Your task to perform on an android device: toggle improve location accuracy Image 0: 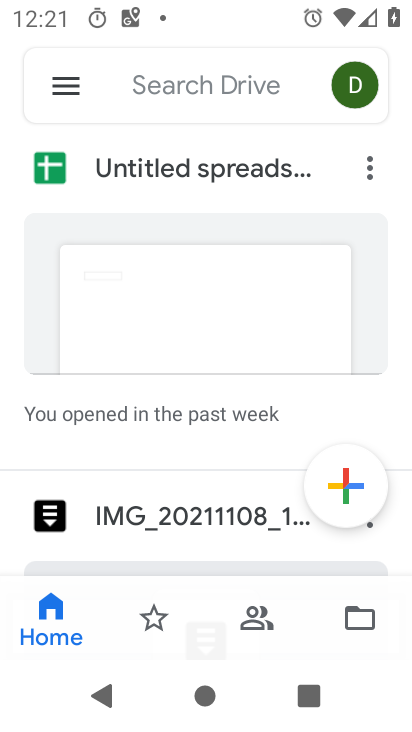
Step 0: press back button
Your task to perform on an android device: toggle improve location accuracy Image 1: 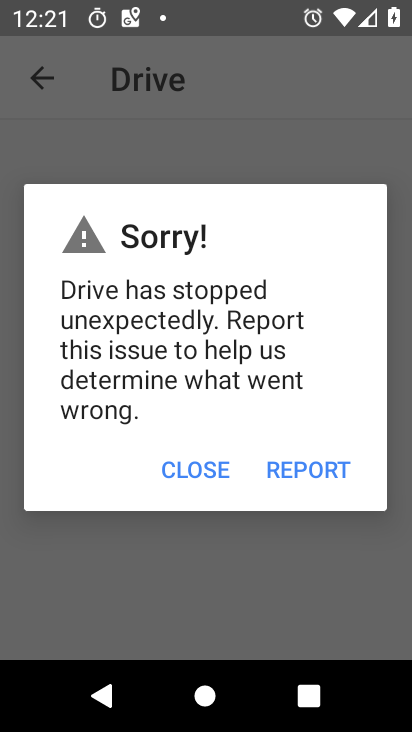
Step 1: press home button
Your task to perform on an android device: toggle improve location accuracy Image 2: 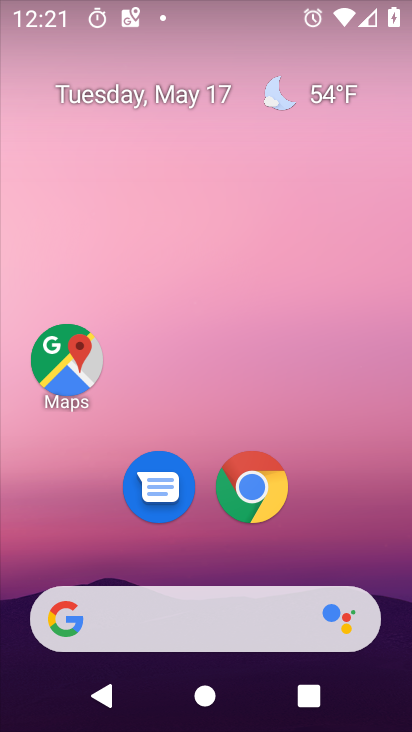
Step 2: drag from (193, 568) to (253, 152)
Your task to perform on an android device: toggle improve location accuracy Image 3: 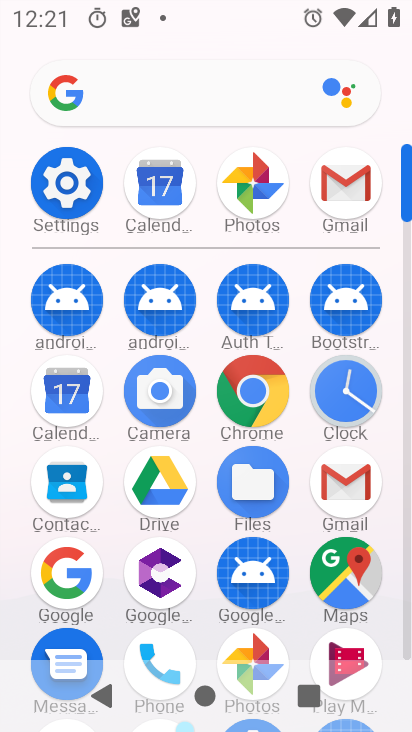
Step 3: click (61, 194)
Your task to perform on an android device: toggle improve location accuracy Image 4: 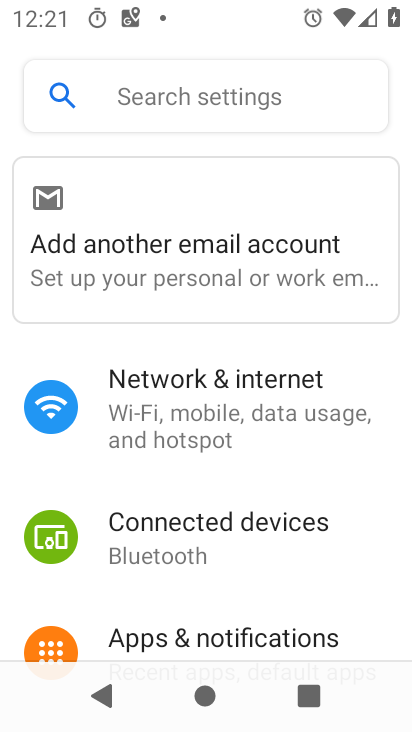
Step 4: drag from (173, 520) to (299, 70)
Your task to perform on an android device: toggle improve location accuracy Image 5: 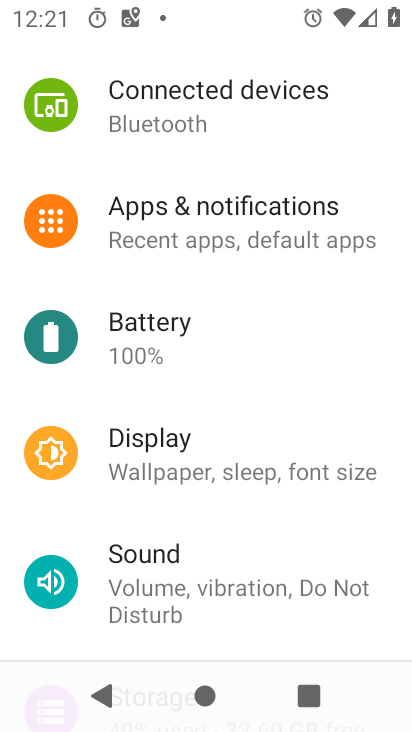
Step 5: drag from (117, 536) to (249, 107)
Your task to perform on an android device: toggle improve location accuracy Image 6: 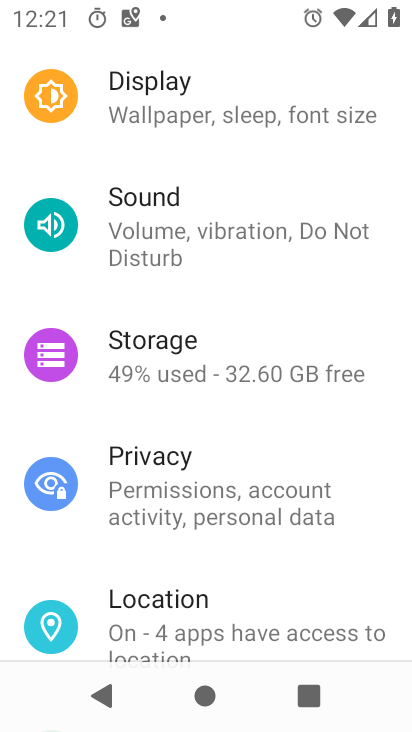
Step 6: drag from (164, 506) to (284, 75)
Your task to perform on an android device: toggle improve location accuracy Image 7: 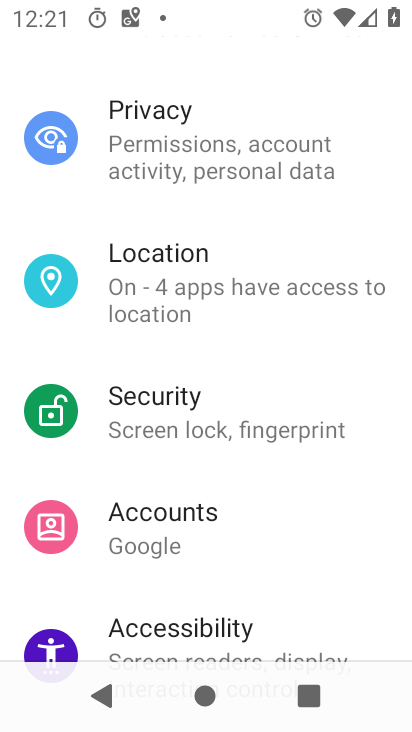
Step 7: click (174, 579)
Your task to perform on an android device: toggle improve location accuracy Image 8: 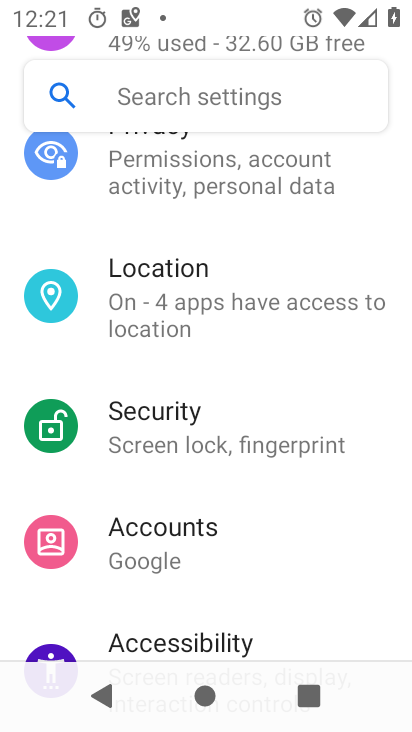
Step 8: click (129, 303)
Your task to perform on an android device: toggle improve location accuracy Image 9: 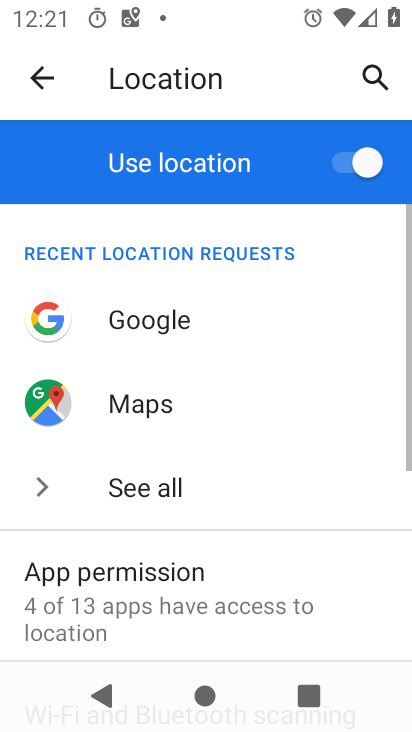
Step 9: drag from (156, 589) to (282, 98)
Your task to perform on an android device: toggle improve location accuracy Image 10: 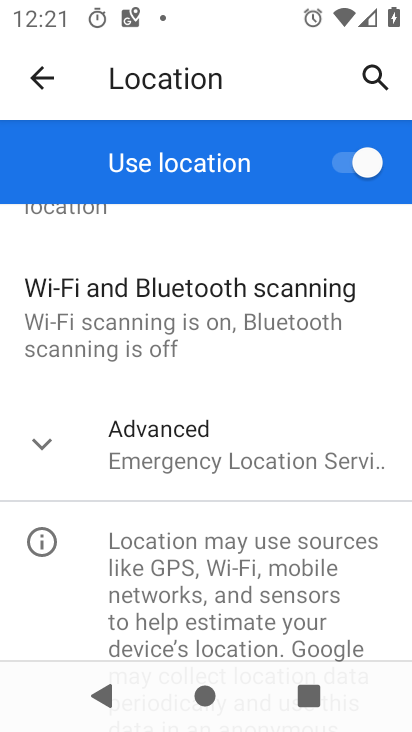
Step 10: click (218, 462)
Your task to perform on an android device: toggle improve location accuracy Image 11: 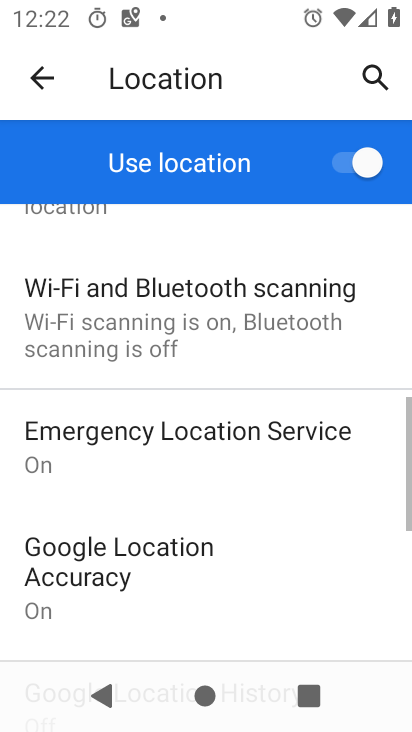
Step 11: drag from (174, 605) to (228, 227)
Your task to perform on an android device: toggle improve location accuracy Image 12: 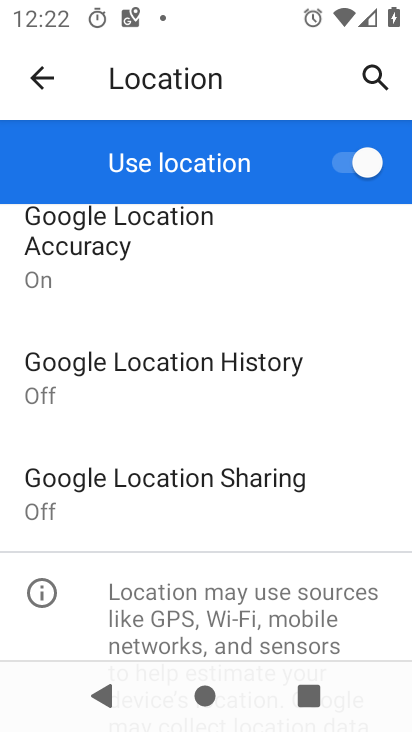
Step 12: drag from (159, 298) to (145, 506)
Your task to perform on an android device: toggle improve location accuracy Image 13: 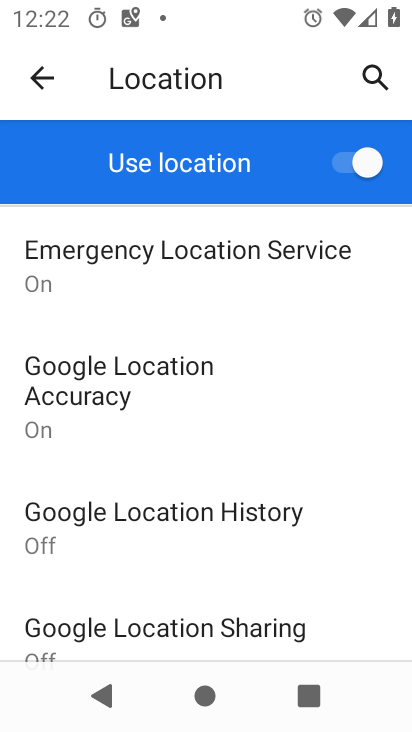
Step 13: click (115, 432)
Your task to perform on an android device: toggle improve location accuracy Image 14: 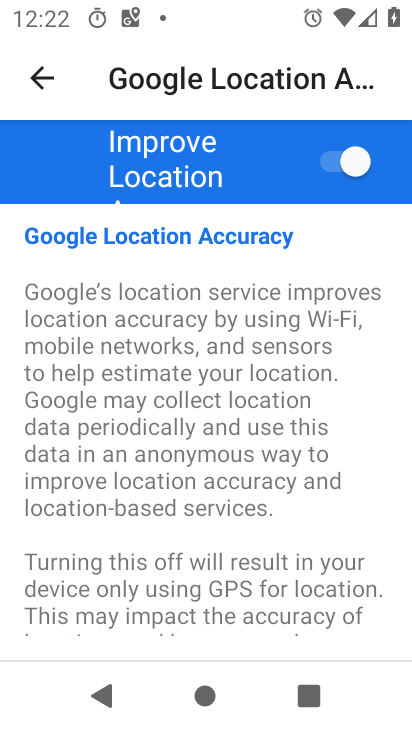
Step 14: drag from (179, 501) to (229, 534)
Your task to perform on an android device: toggle improve location accuracy Image 15: 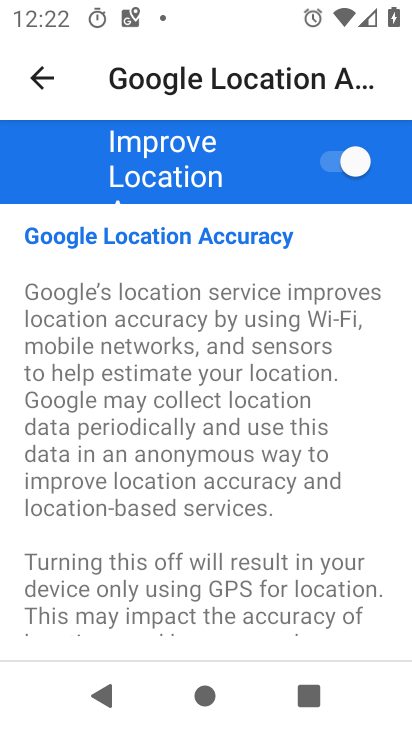
Step 15: click (344, 163)
Your task to perform on an android device: toggle improve location accuracy Image 16: 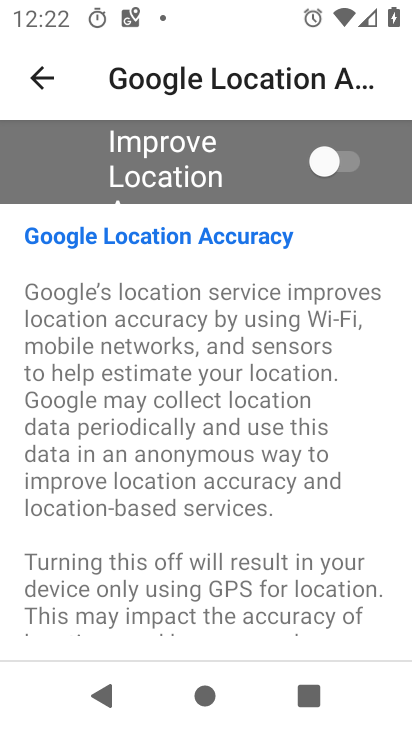
Step 16: task complete